Your task to perform on an android device: check google app version Image 0: 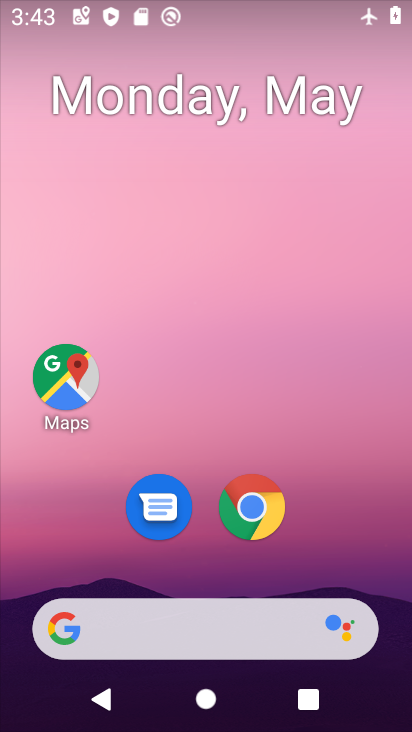
Step 0: click (165, 618)
Your task to perform on an android device: check google app version Image 1: 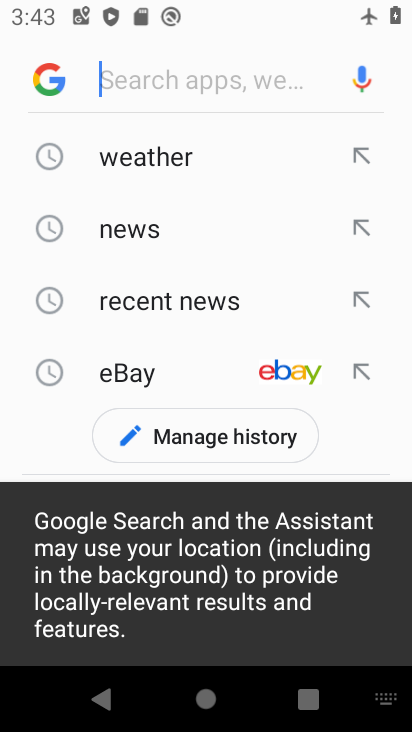
Step 1: click (51, 71)
Your task to perform on an android device: check google app version Image 2: 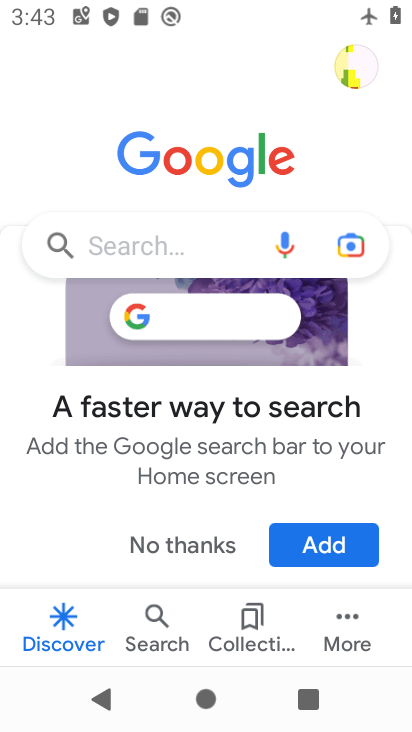
Step 2: click (350, 630)
Your task to perform on an android device: check google app version Image 3: 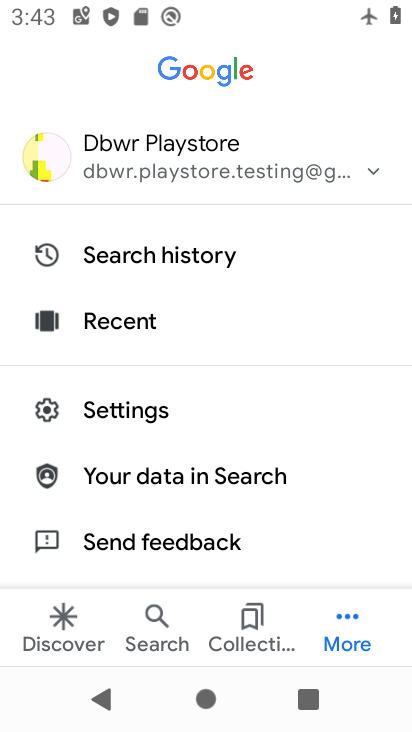
Step 3: click (131, 424)
Your task to perform on an android device: check google app version Image 4: 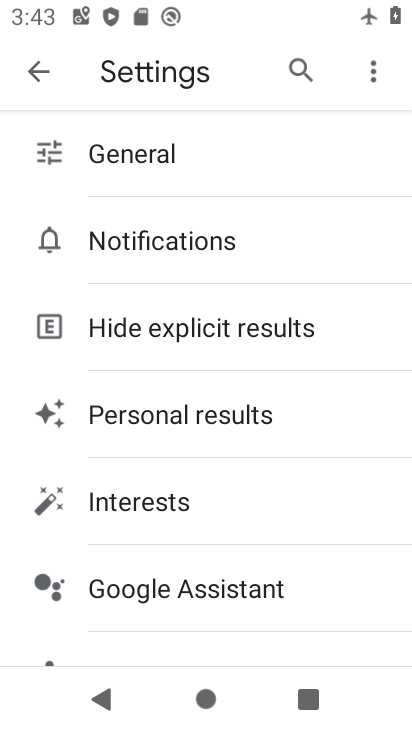
Step 4: drag from (153, 619) to (331, 218)
Your task to perform on an android device: check google app version Image 5: 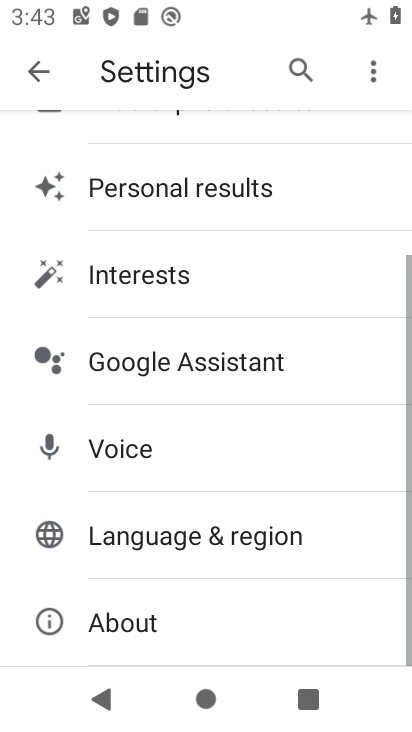
Step 5: drag from (102, 593) to (128, 301)
Your task to perform on an android device: check google app version Image 6: 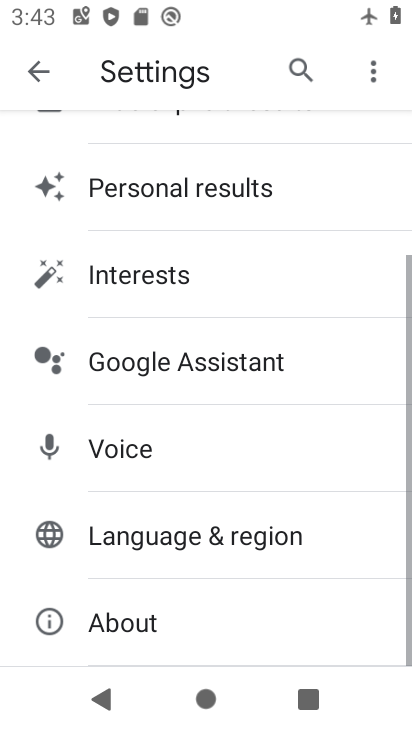
Step 6: click (119, 612)
Your task to perform on an android device: check google app version Image 7: 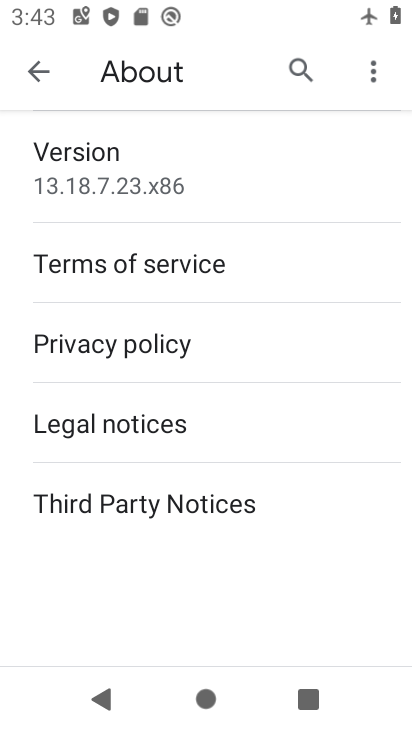
Step 7: task complete